Your task to perform on an android device: turn off wifi Image 0: 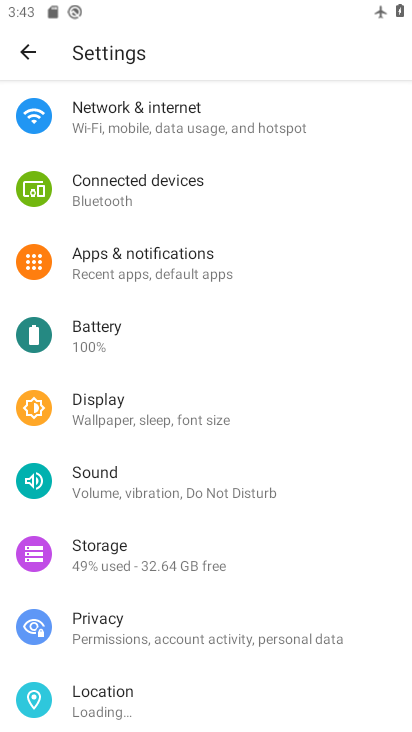
Step 0: click (199, 118)
Your task to perform on an android device: turn off wifi Image 1: 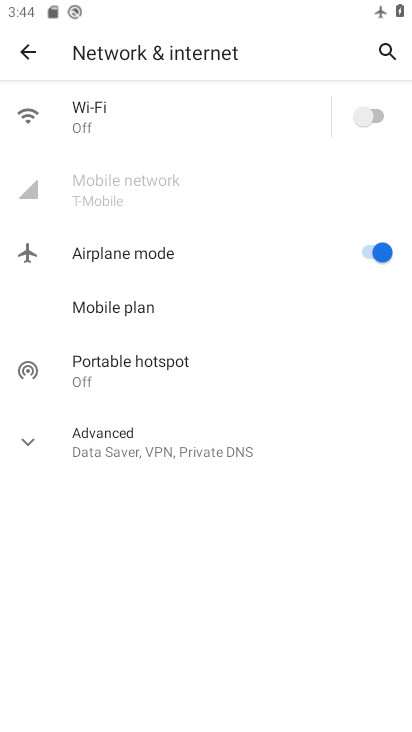
Step 1: task complete